Your task to perform on an android device: turn notification dots off Image 0: 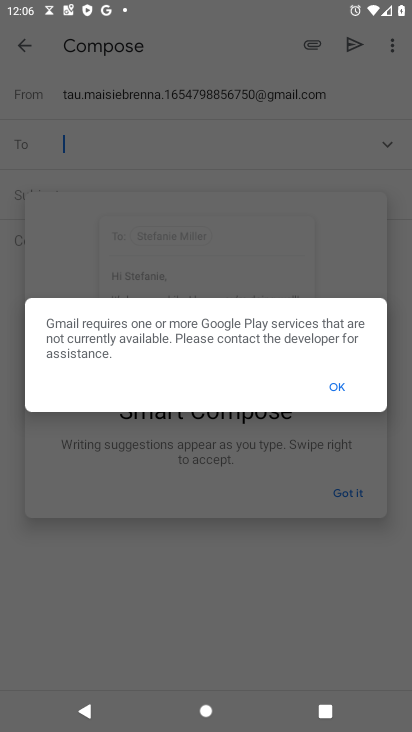
Step 0: press home button
Your task to perform on an android device: turn notification dots off Image 1: 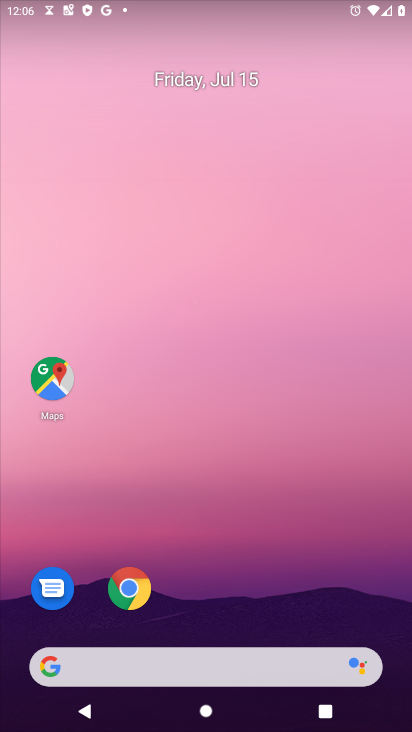
Step 1: drag from (164, 675) to (292, 68)
Your task to perform on an android device: turn notification dots off Image 2: 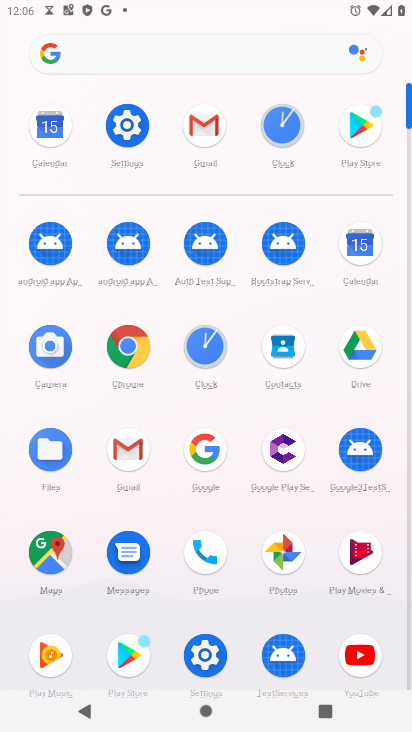
Step 2: click (133, 128)
Your task to perform on an android device: turn notification dots off Image 3: 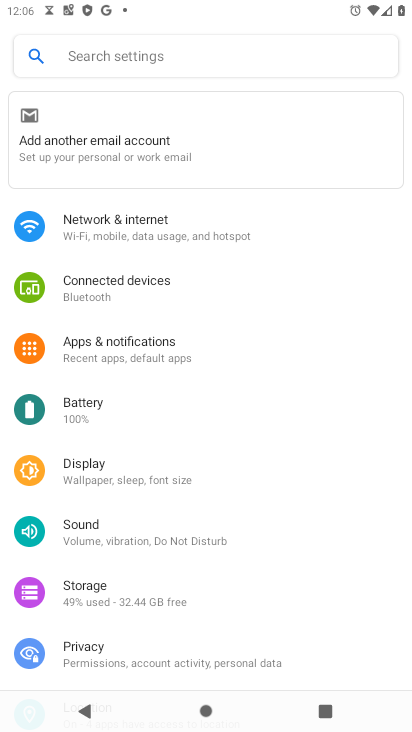
Step 3: click (125, 344)
Your task to perform on an android device: turn notification dots off Image 4: 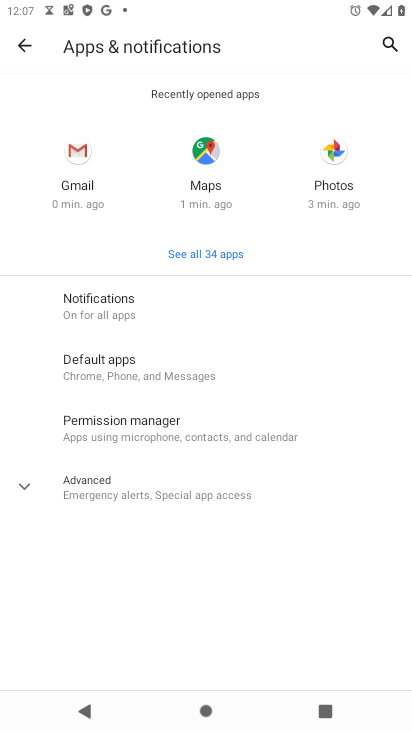
Step 4: click (124, 481)
Your task to perform on an android device: turn notification dots off Image 5: 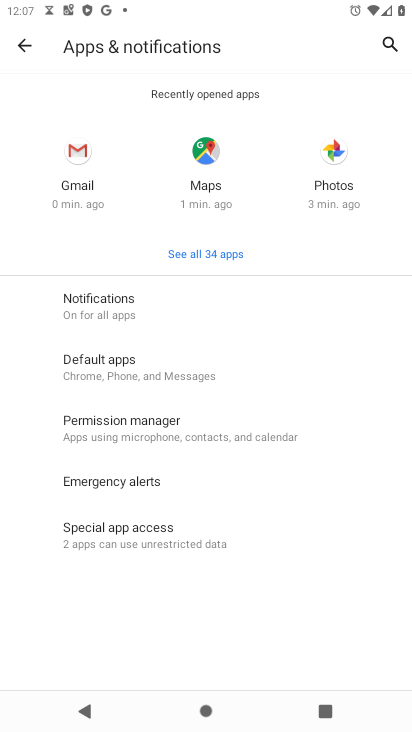
Step 5: click (126, 291)
Your task to perform on an android device: turn notification dots off Image 6: 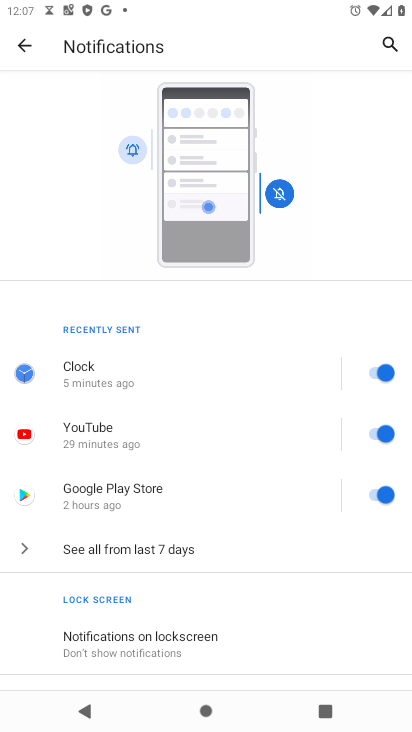
Step 6: drag from (269, 615) to (316, 231)
Your task to perform on an android device: turn notification dots off Image 7: 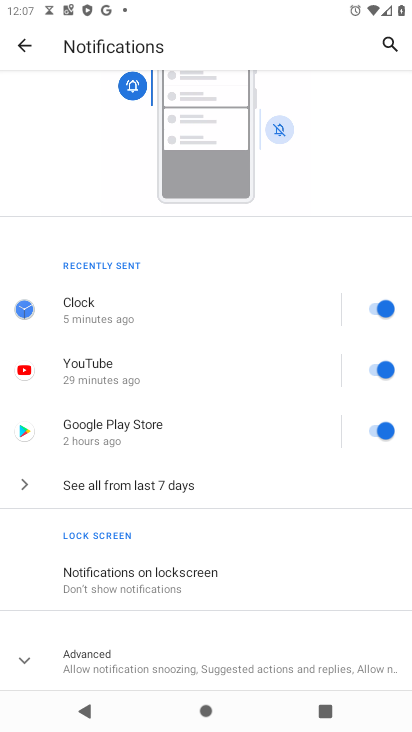
Step 7: click (221, 657)
Your task to perform on an android device: turn notification dots off Image 8: 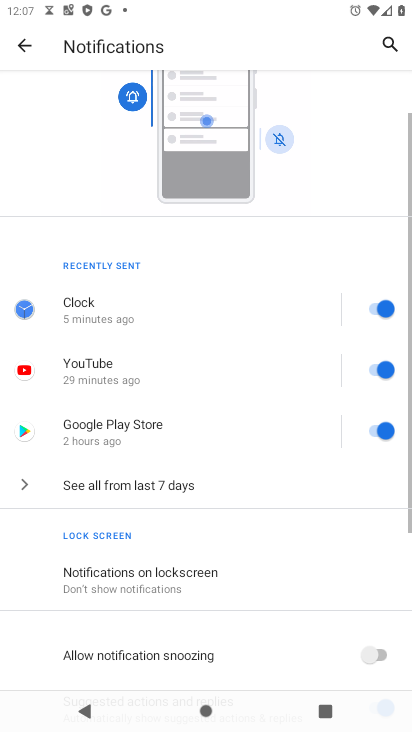
Step 8: drag from (254, 602) to (309, 150)
Your task to perform on an android device: turn notification dots off Image 9: 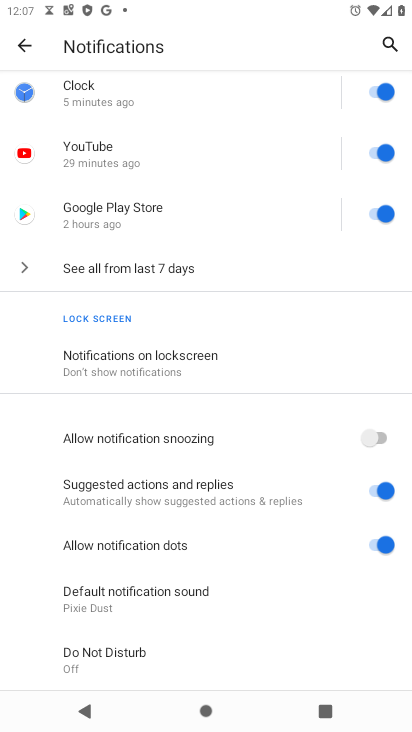
Step 9: click (375, 541)
Your task to perform on an android device: turn notification dots off Image 10: 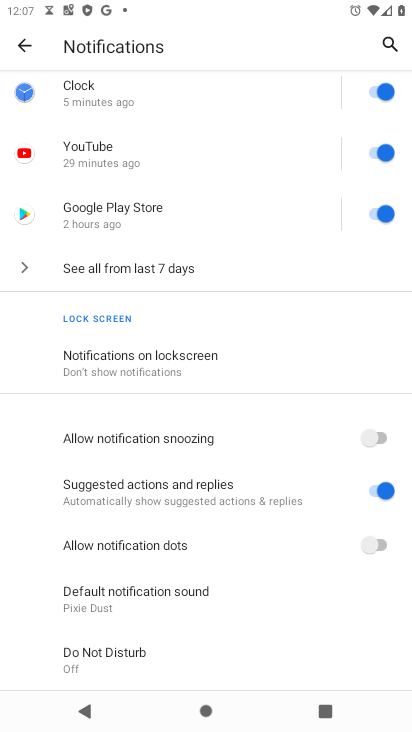
Step 10: task complete